Your task to perform on an android device: set an alarm Image 0: 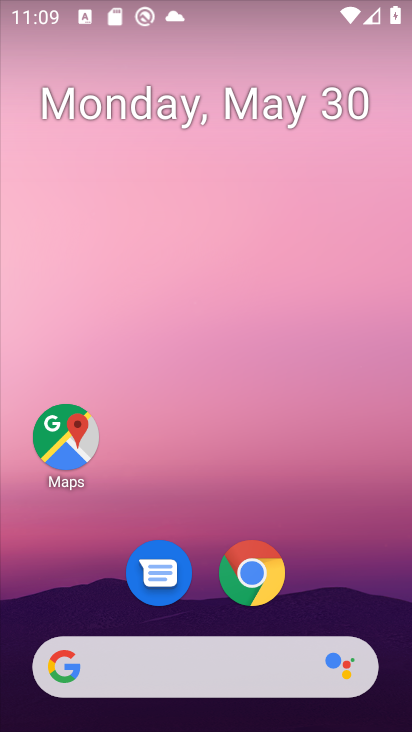
Step 0: drag from (278, 667) to (290, 47)
Your task to perform on an android device: set an alarm Image 1: 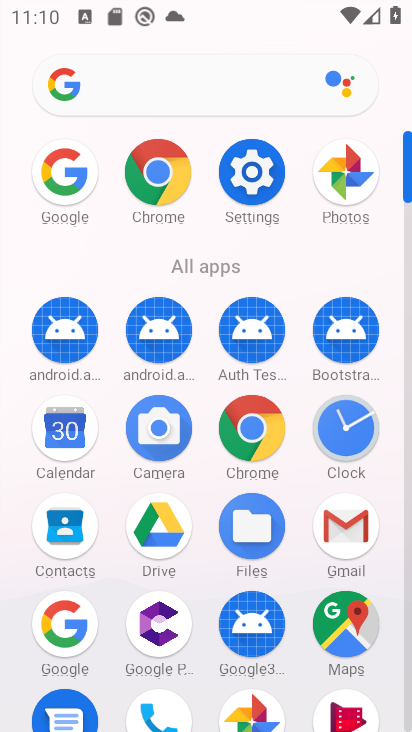
Step 1: click (349, 435)
Your task to perform on an android device: set an alarm Image 2: 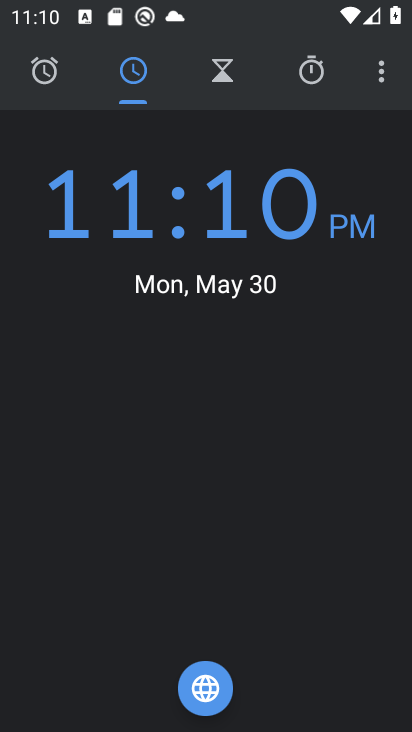
Step 2: click (57, 73)
Your task to perform on an android device: set an alarm Image 3: 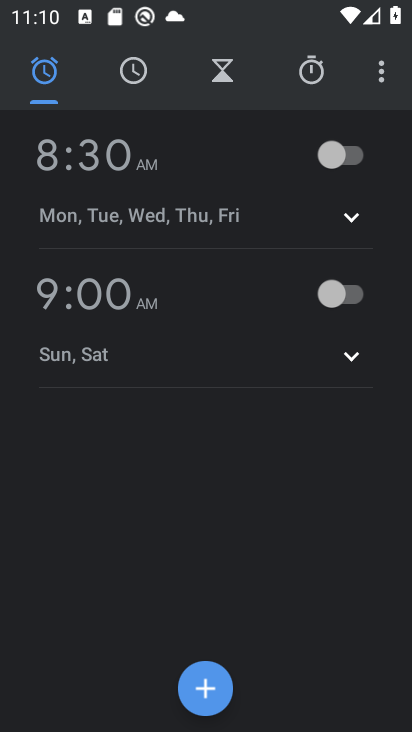
Step 3: click (204, 676)
Your task to perform on an android device: set an alarm Image 4: 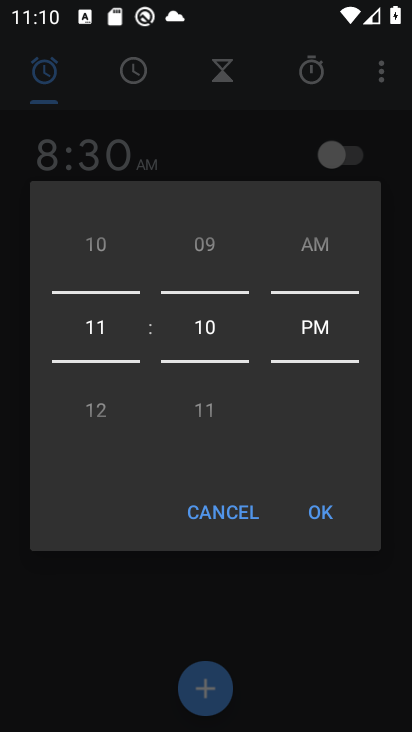
Step 4: click (327, 511)
Your task to perform on an android device: set an alarm Image 5: 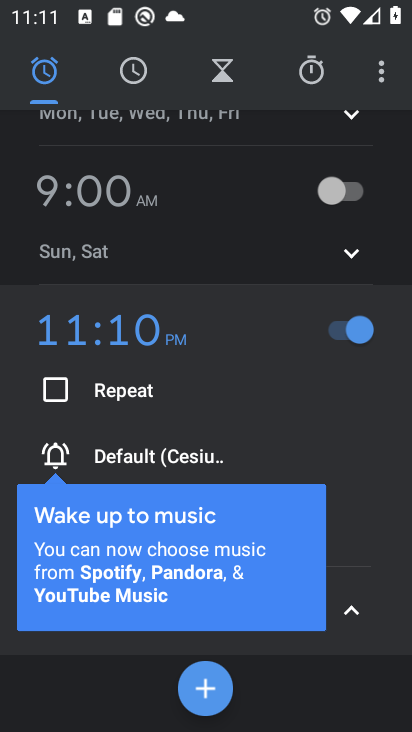
Step 5: task complete